Your task to perform on an android device: Open battery settings Image 0: 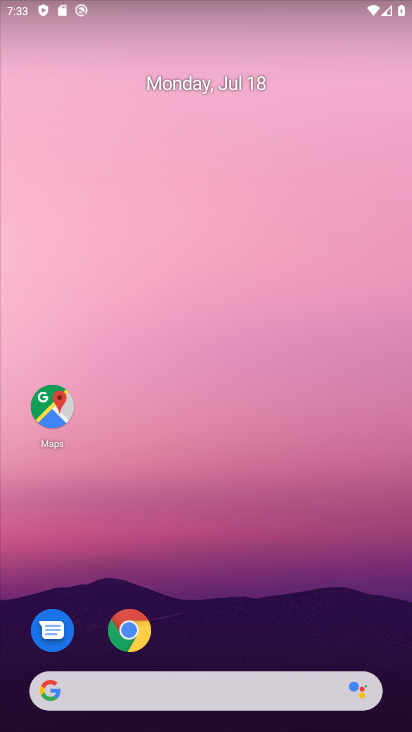
Step 0: drag from (198, 606) to (166, 33)
Your task to perform on an android device: Open battery settings Image 1: 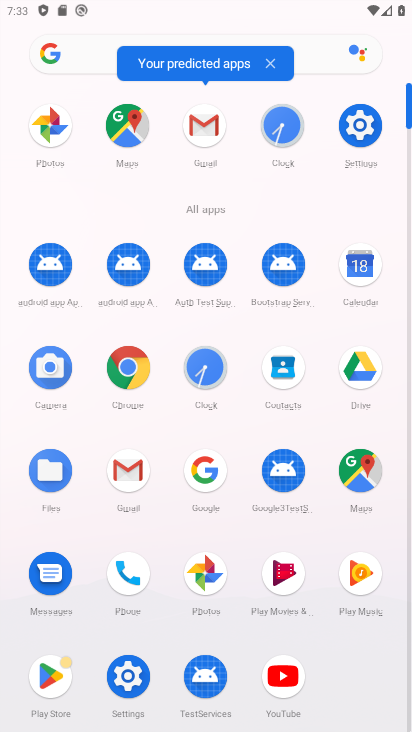
Step 1: click (357, 126)
Your task to perform on an android device: Open battery settings Image 2: 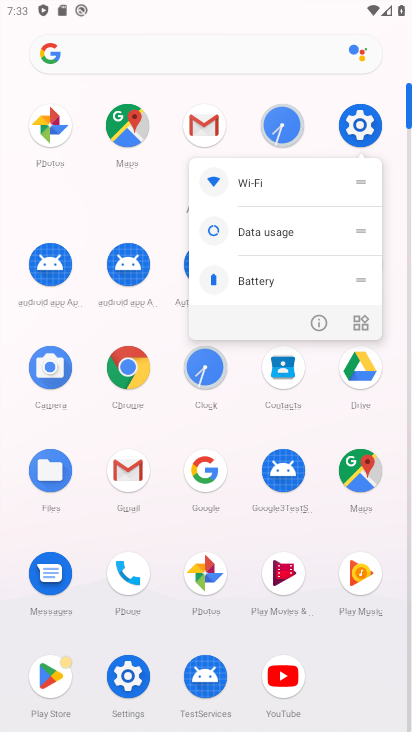
Step 2: click (369, 124)
Your task to perform on an android device: Open battery settings Image 3: 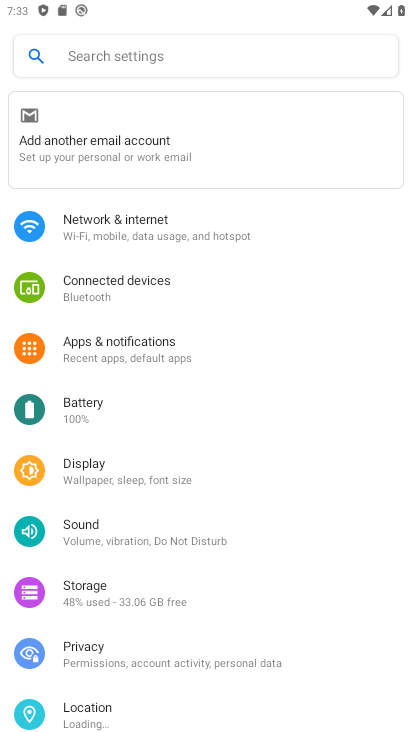
Step 3: click (85, 403)
Your task to perform on an android device: Open battery settings Image 4: 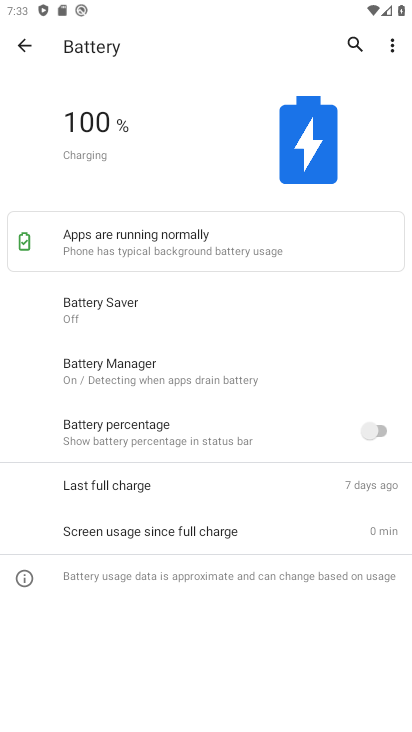
Step 4: task complete